Your task to perform on an android device: check android version Image 0: 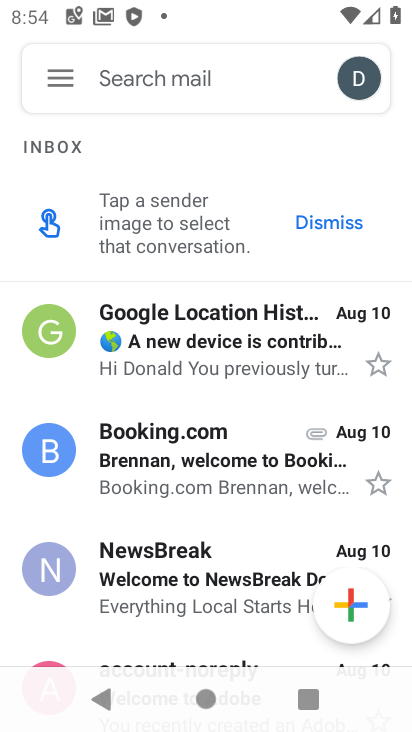
Step 0: task complete